Your task to perform on an android device: Go to network settings Image 0: 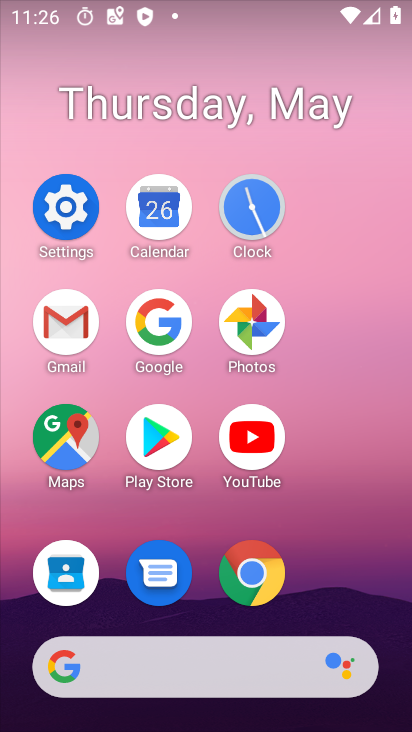
Step 0: click (73, 195)
Your task to perform on an android device: Go to network settings Image 1: 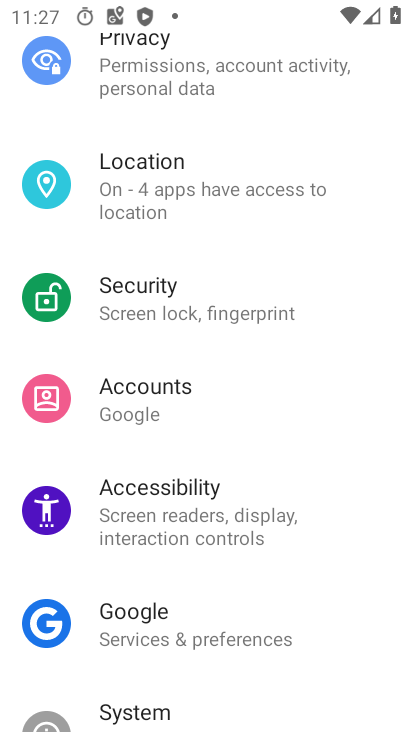
Step 1: drag from (218, 302) to (277, 644)
Your task to perform on an android device: Go to network settings Image 2: 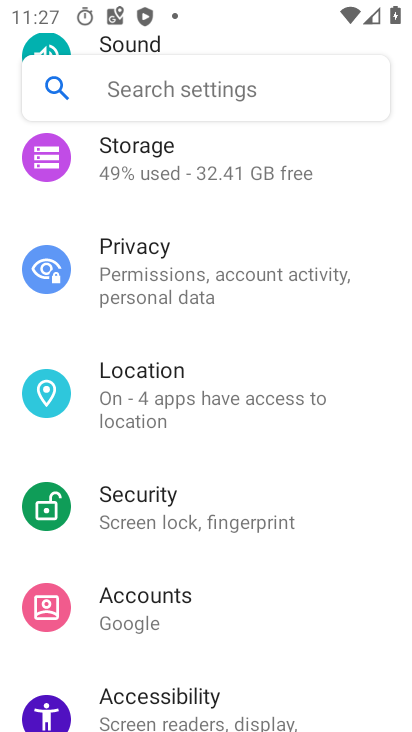
Step 2: drag from (228, 163) to (292, 535)
Your task to perform on an android device: Go to network settings Image 3: 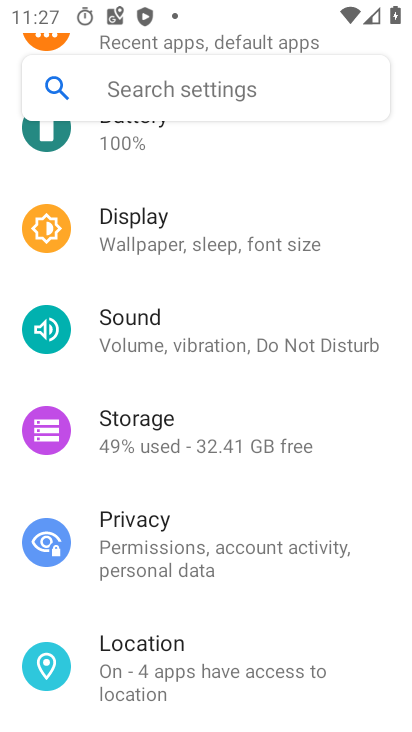
Step 3: drag from (249, 180) to (302, 534)
Your task to perform on an android device: Go to network settings Image 4: 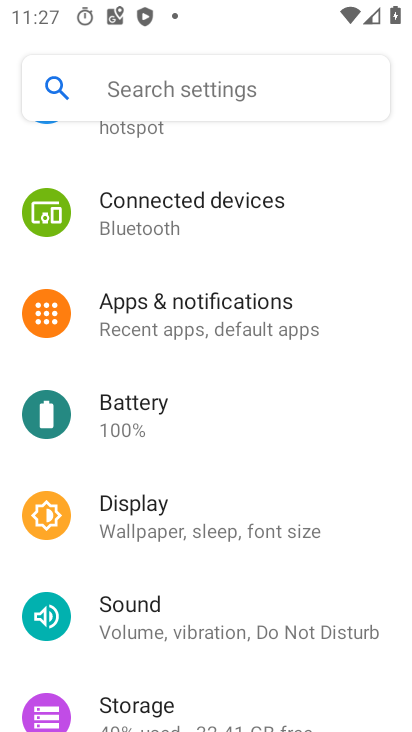
Step 4: drag from (282, 191) to (305, 537)
Your task to perform on an android device: Go to network settings Image 5: 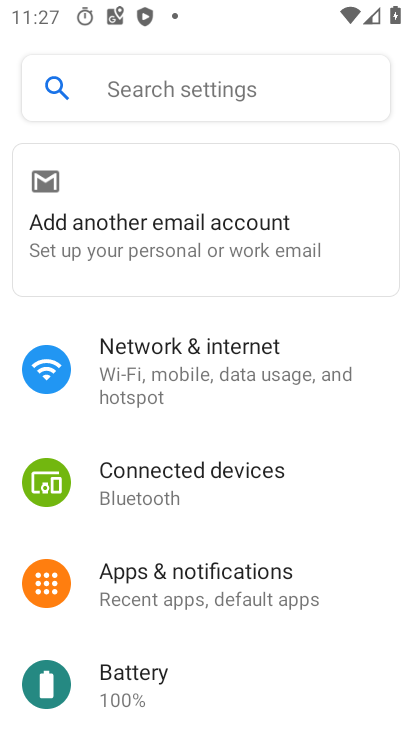
Step 5: click (198, 358)
Your task to perform on an android device: Go to network settings Image 6: 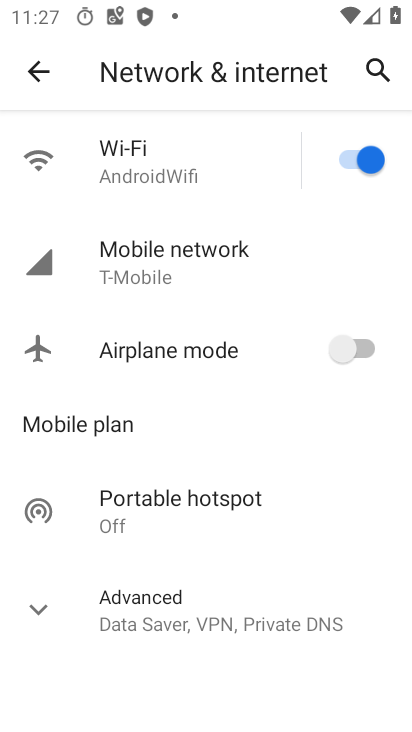
Step 6: click (217, 263)
Your task to perform on an android device: Go to network settings Image 7: 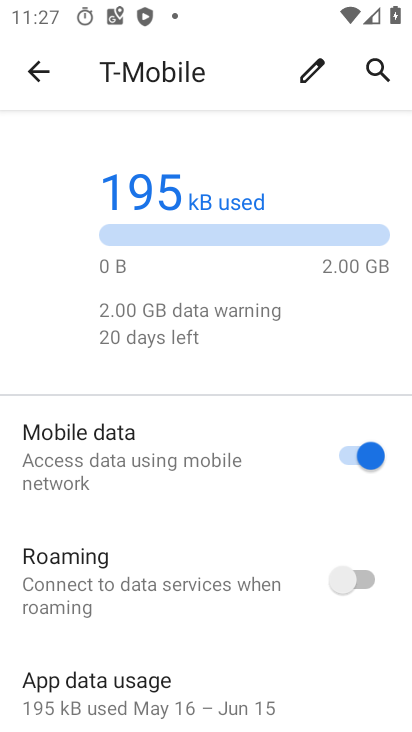
Step 7: task complete